Your task to perform on an android device: turn on priority inbox in the gmail app Image 0: 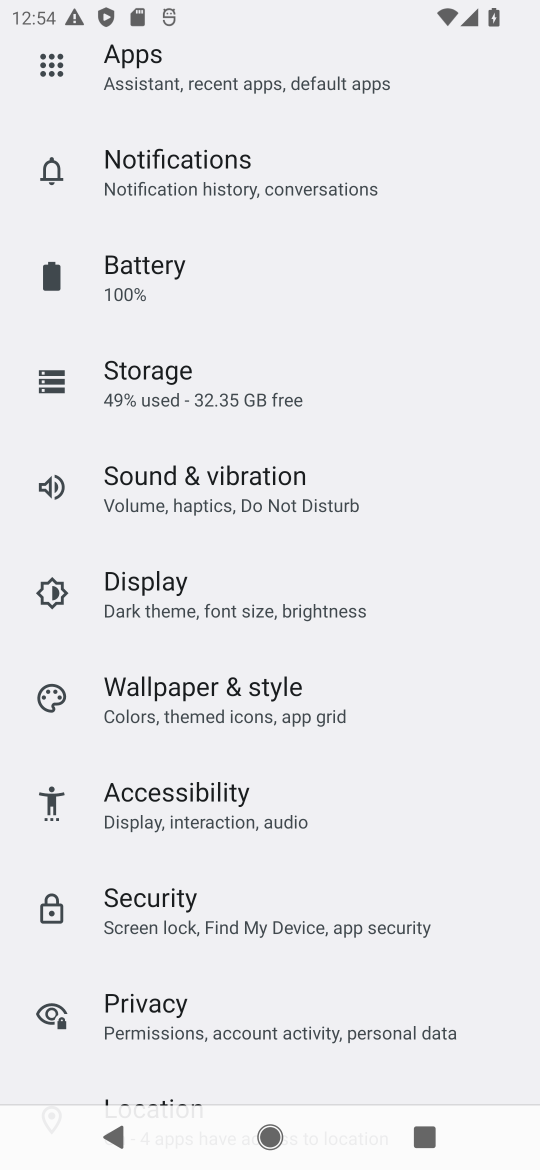
Step 0: press back button
Your task to perform on an android device: turn on priority inbox in the gmail app Image 1: 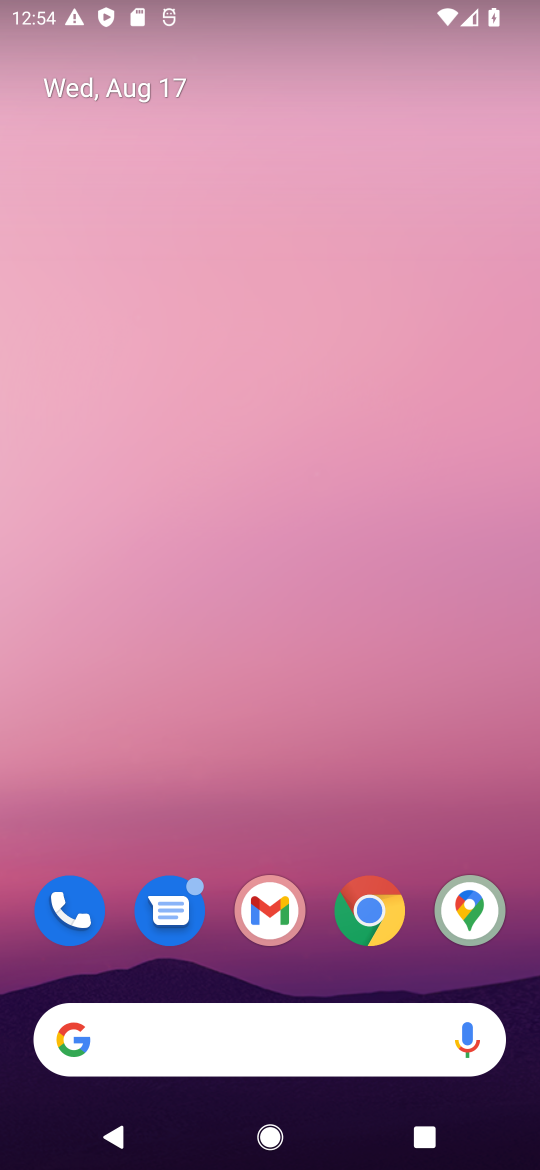
Step 1: click (269, 916)
Your task to perform on an android device: turn on priority inbox in the gmail app Image 2: 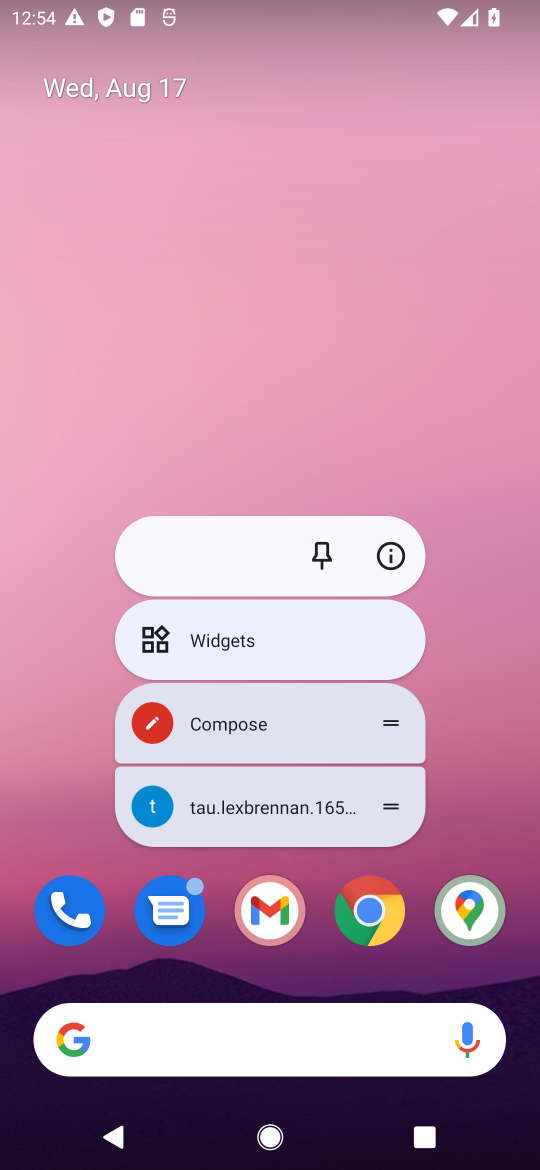
Step 2: click (271, 904)
Your task to perform on an android device: turn on priority inbox in the gmail app Image 3: 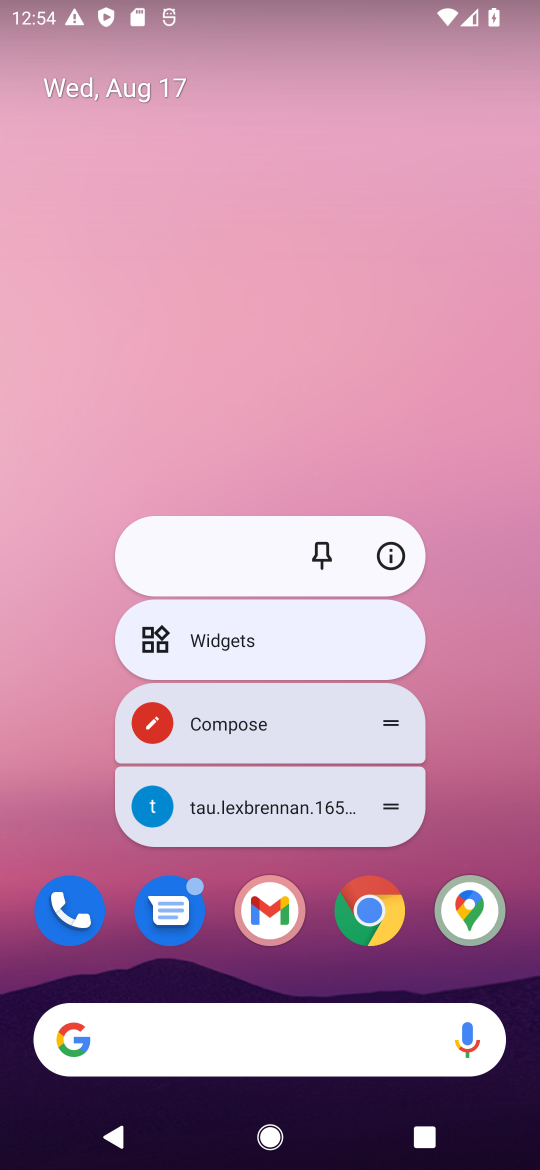
Step 3: click (273, 912)
Your task to perform on an android device: turn on priority inbox in the gmail app Image 4: 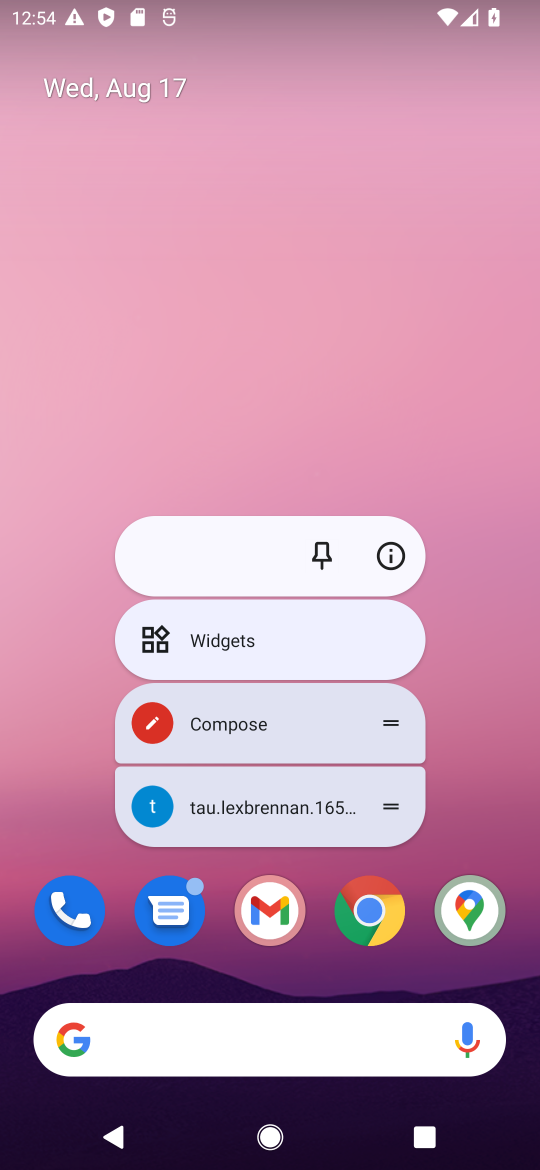
Step 4: click (266, 912)
Your task to perform on an android device: turn on priority inbox in the gmail app Image 5: 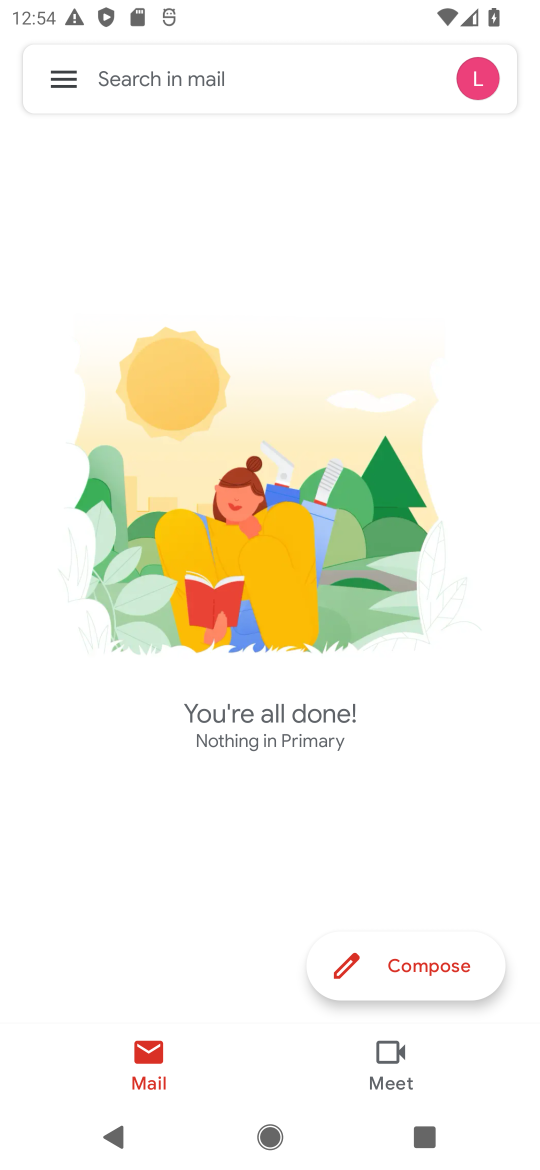
Step 5: click (64, 86)
Your task to perform on an android device: turn on priority inbox in the gmail app Image 6: 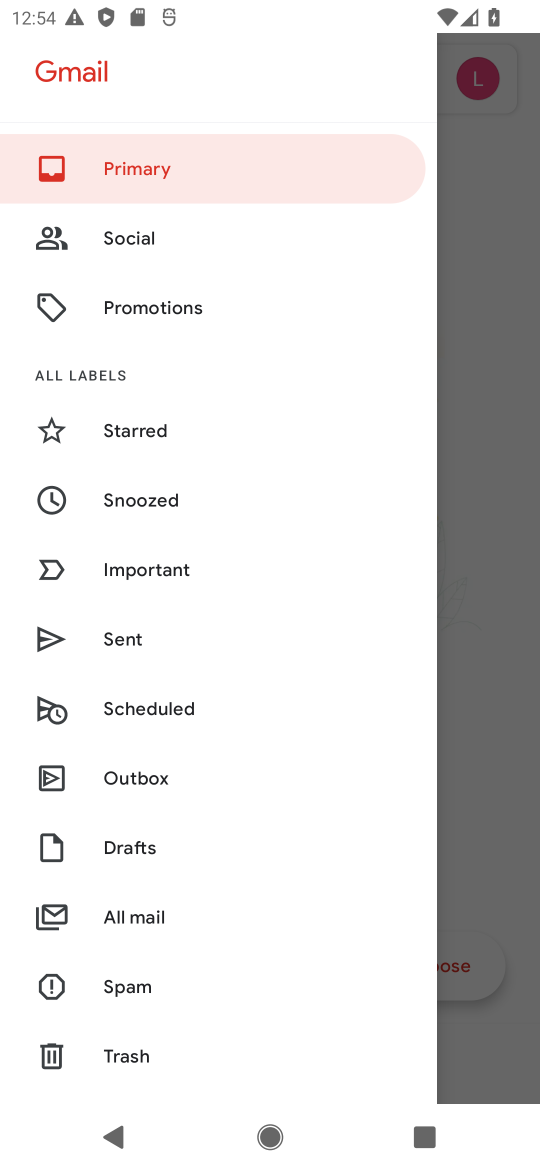
Step 6: drag from (123, 981) to (370, 54)
Your task to perform on an android device: turn on priority inbox in the gmail app Image 7: 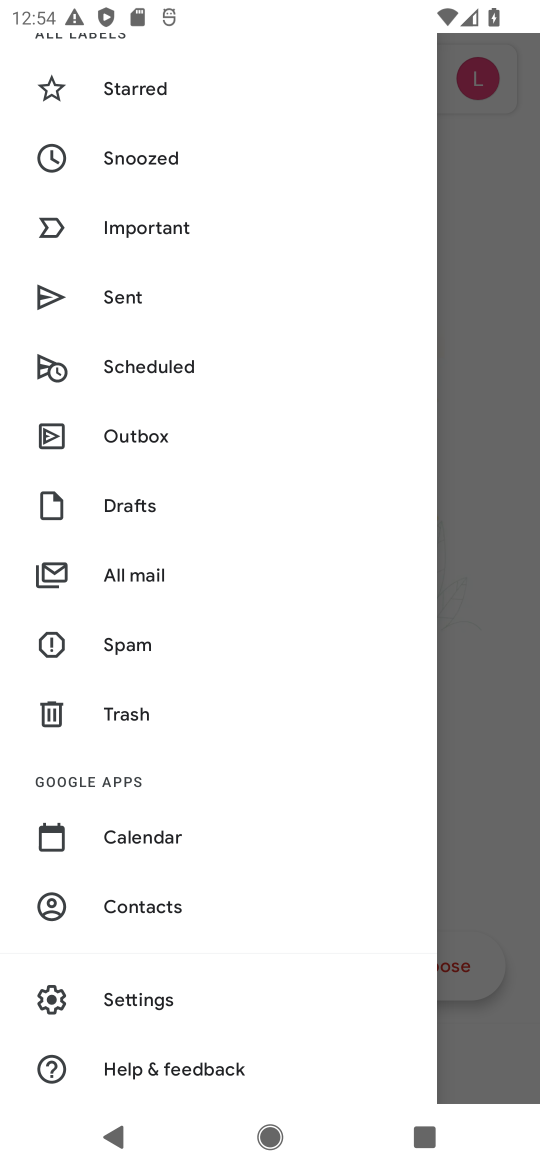
Step 7: click (151, 1002)
Your task to perform on an android device: turn on priority inbox in the gmail app Image 8: 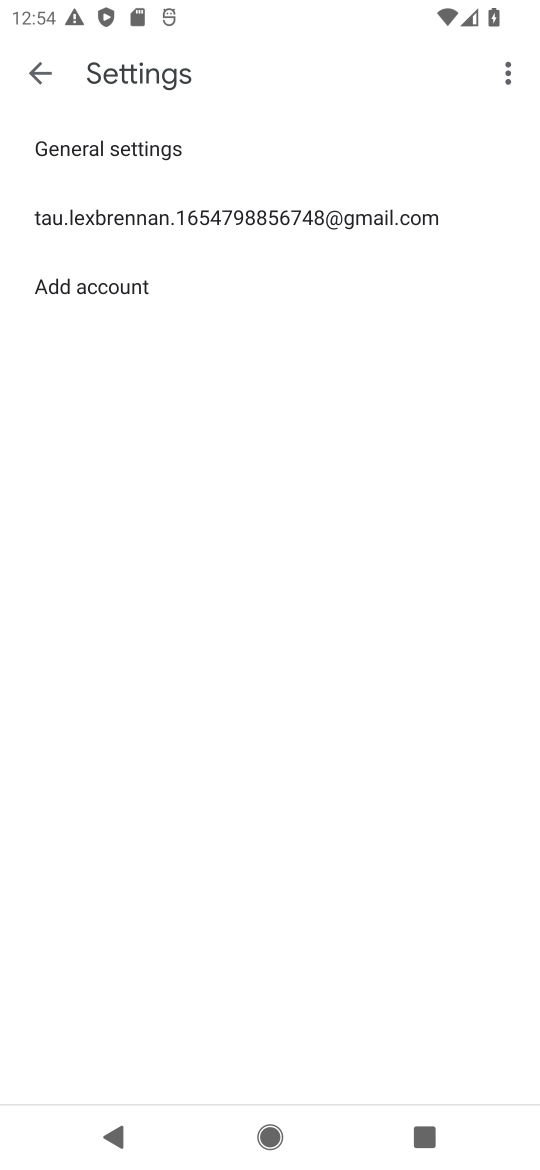
Step 8: click (282, 224)
Your task to perform on an android device: turn on priority inbox in the gmail app Image 9: 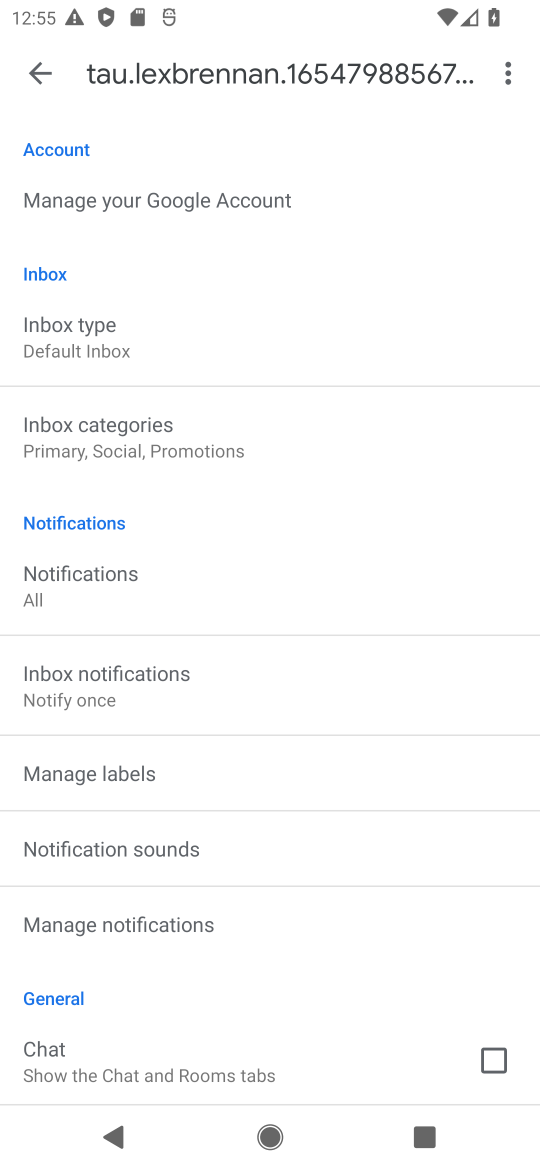
Step 9: click (146, 346)
Your task to perform on an android device: turn on priority inbox in the gmail app Image 10: 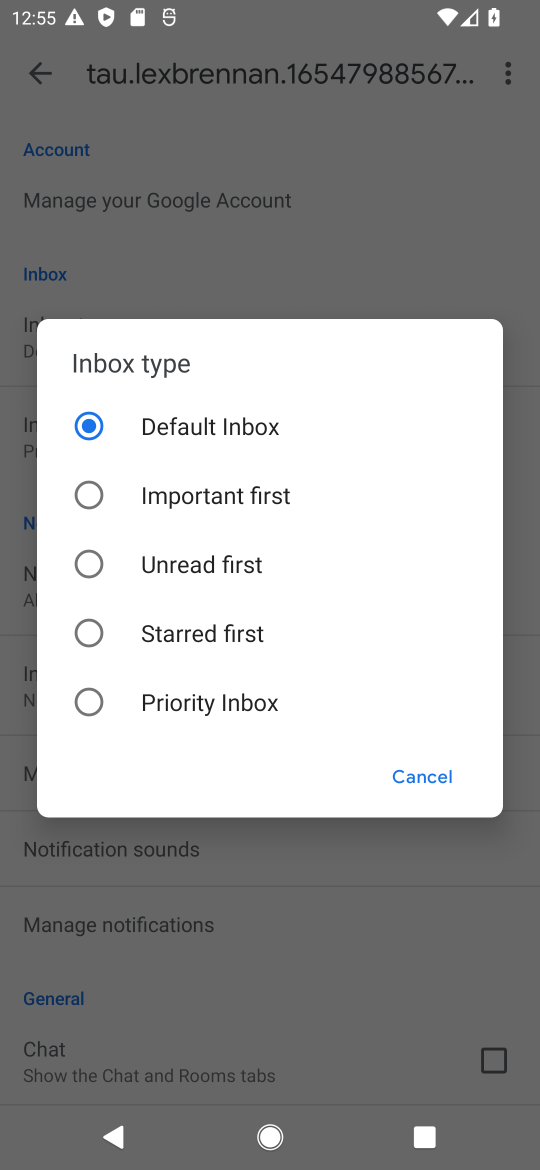
Step 10: click (96, 699)
Your task to perform on an android device: turn on priority inbox in the gmail app Image 11: 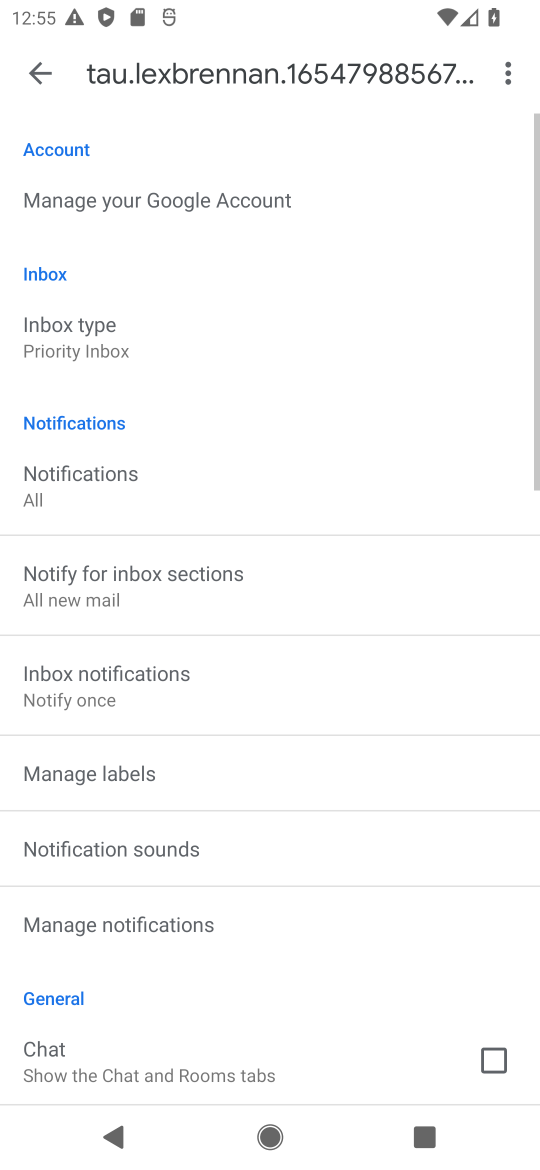
Step 11: task complete